Your task to perform on an android device: toggle priority inbox in the gmail app Image 0: 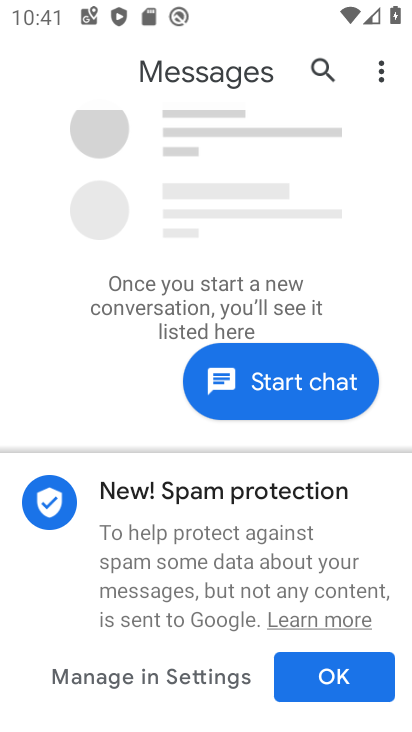
Step 0: press home button
Your task to perform on an android device: toggle priority inbox in the gmail app Image 1: 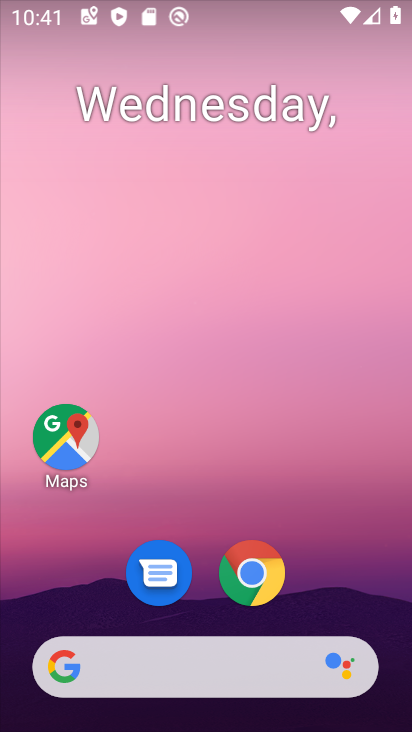
Step 1: drag from (173, 641) to (136, 245)
Your task to perform on an android device: toggle priority inbox in the gmail app Image 2: 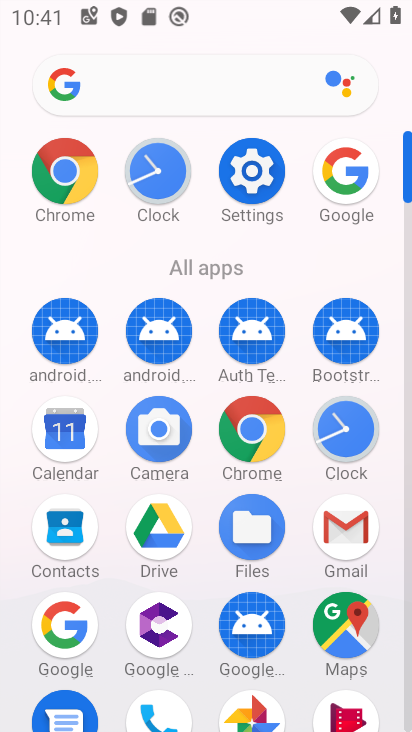
Step 2: click (362, 520)
Your task to perform on an android device: toggle priority inbox in the gmail app Image 3: 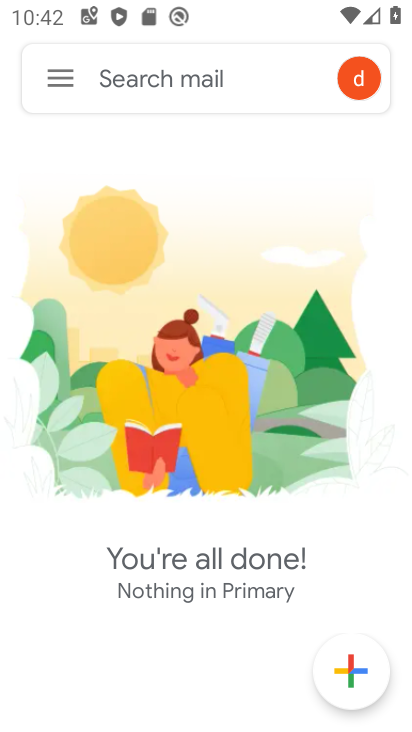
Step 3: click (64, 80)
Your task to perform on an android device: toggle priority inbox in the gmail app Image 4: 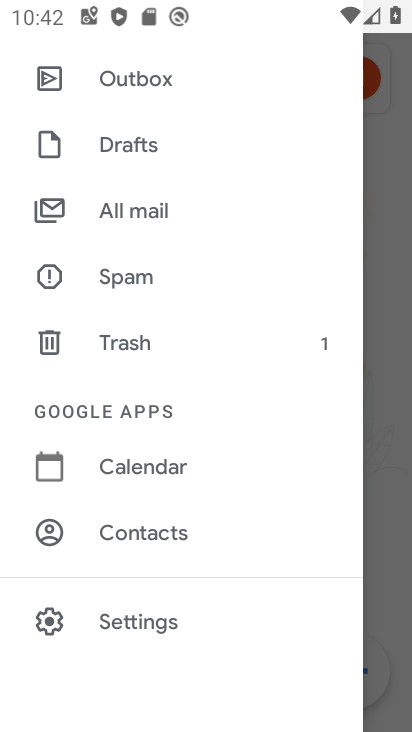
Step 4: click (129, 626)
Your task to perform on an android device: toggle priority inbox in the gmail app Image 5: 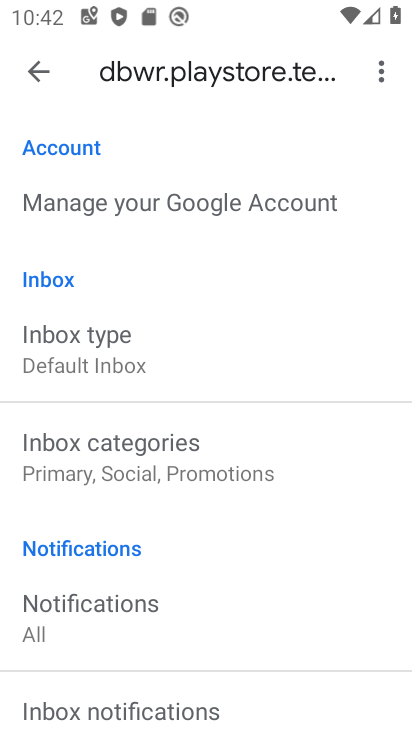
Step 5: click (77, 358)
Your task to perform on an android device: toggle priority inbox in the gmail app Image 6: 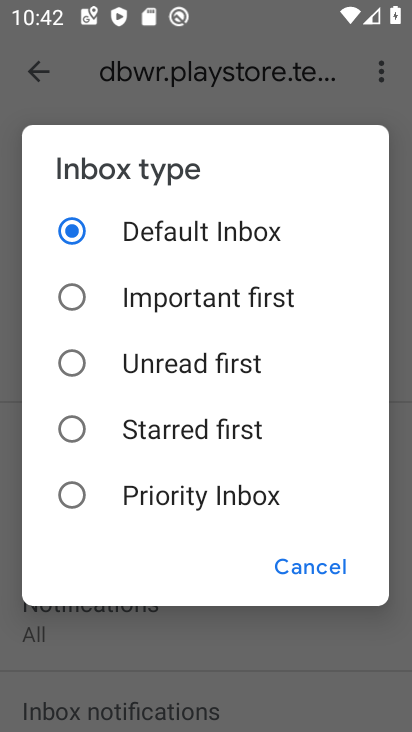
Step 6: click (65, 502)
Your task to perform on an android device: toggle priority inbox in the gmail app Image 7: 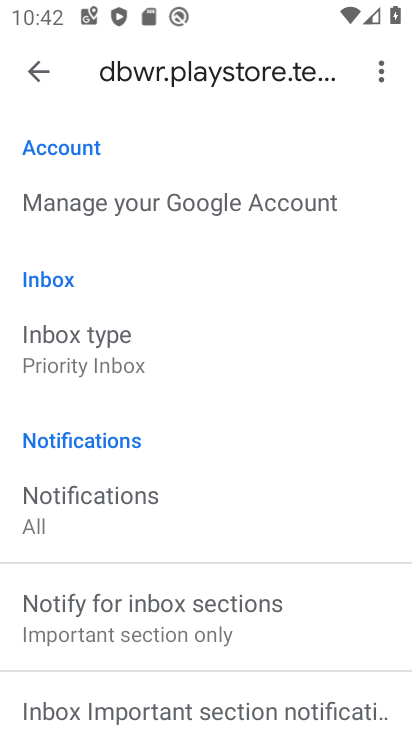
Step 7: click (91, 359)
Your task to perform on an android device: toggle priority inbox in the gmail app Image 8: 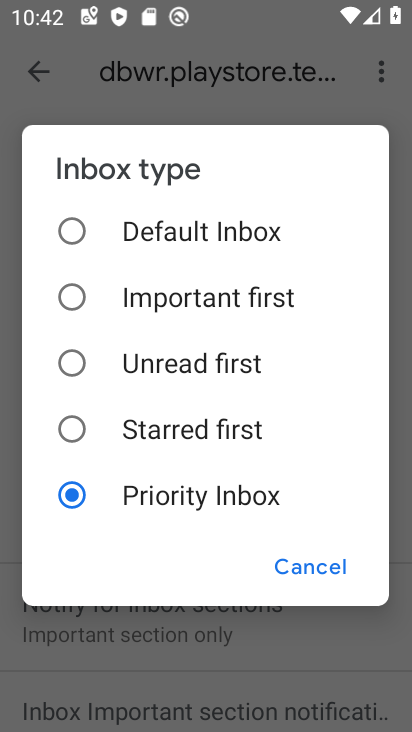
Step 8: click (73, 228)
Your task to perform on an android device: toggle priority inbox in the gmail app Image 9: 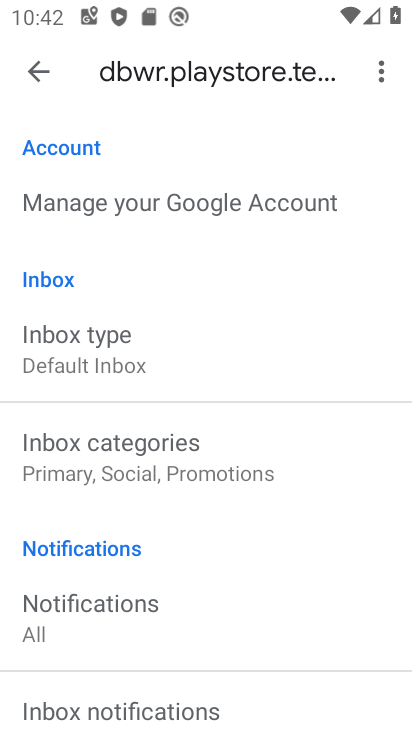
Step 9: task complete